Your task to perform on an android device: turn on wifi Image 0: 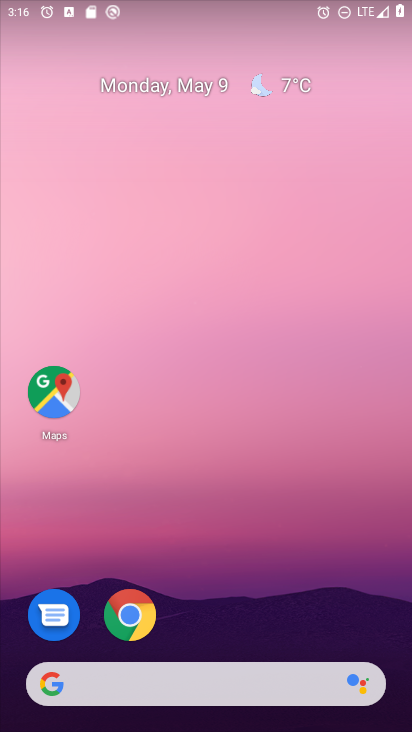
Step 0: press home button
Your task to perform on an android device: turn on wifi Image 1: 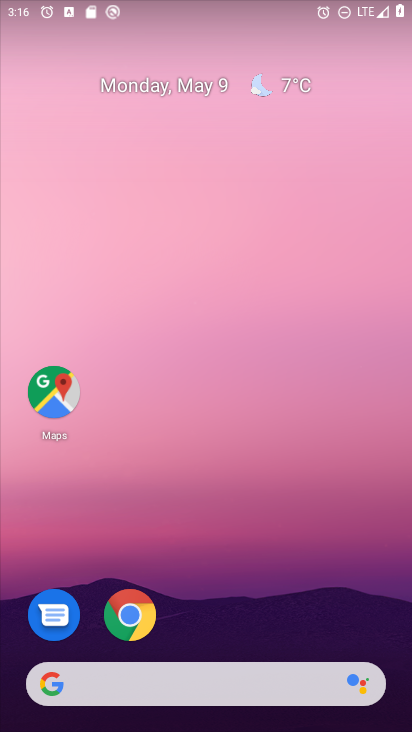
Step 1: drag from (367, 629) to (353, 68)
Your task to perform on an android device: turn on wifi Image 2: 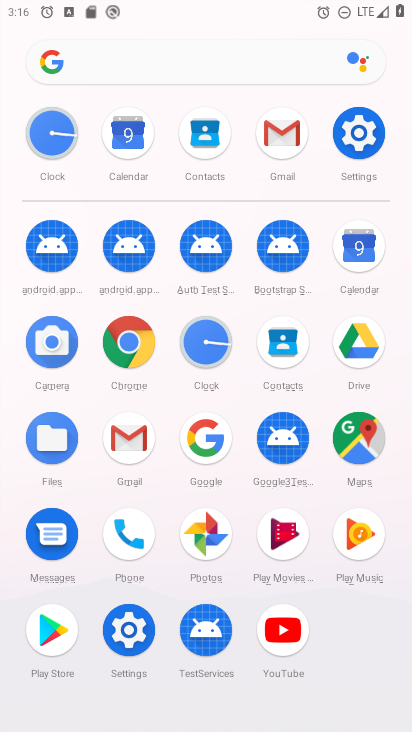
Step 2: click (127, 631)
Your task to perform on an android device: turn on wifi Image 3: 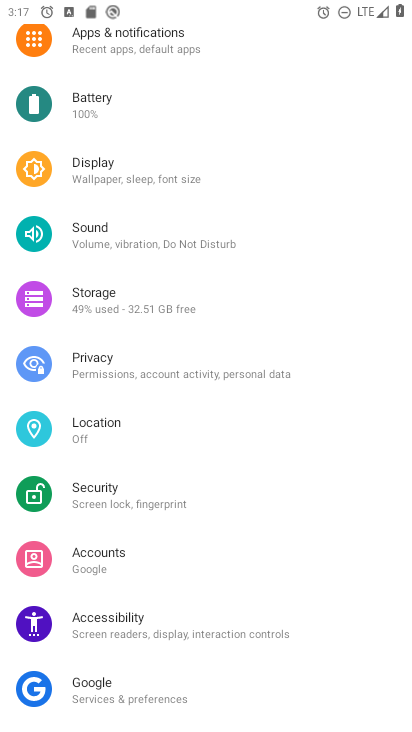
Step 3: drag from (269, 121) to (315, 436)
Your task to perform on an android device: turn on wifi Image 4: 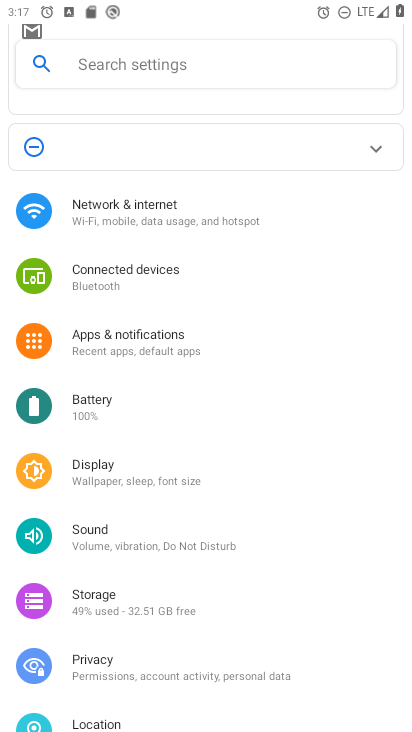
Step 4: click (116, 206)
Your task to perform on an android device: turn on wifi Image 5: 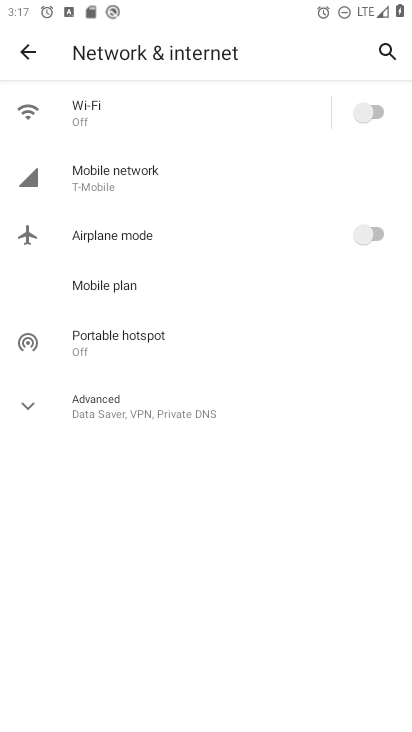
Step 5: click (375, 110)
Your task to perform on an android device: turn on wifi Image 6: 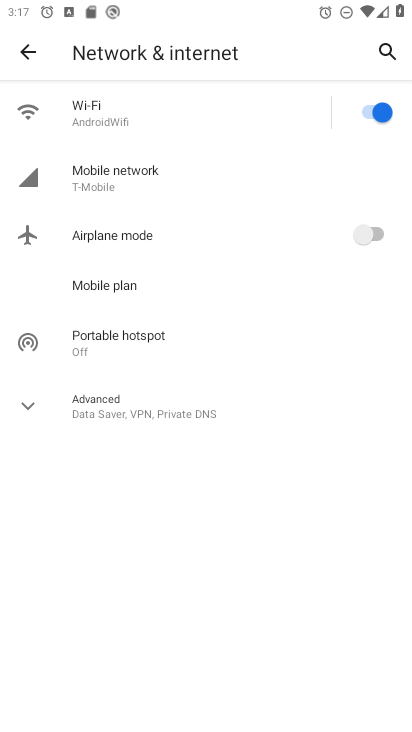
Step 6: task complete